Your task to perform on an android device: Open Google Chrome and click the shortcut for Amazon.com Image 0: 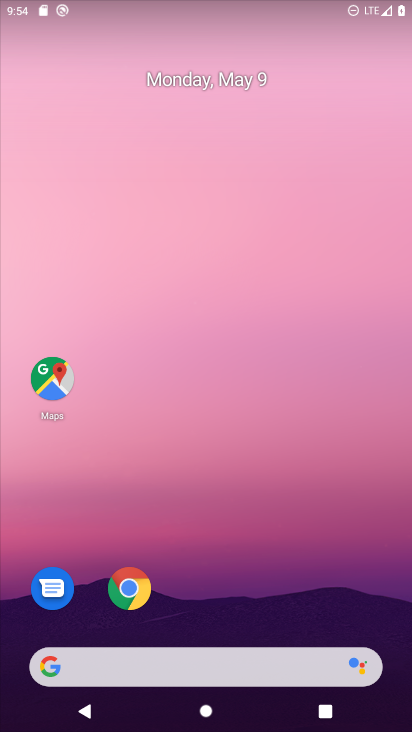
Step 0: click (150, 595)
Your task to perform on an android device: Open Google Chrome and click the shortcut for Amazon.com Image 1: 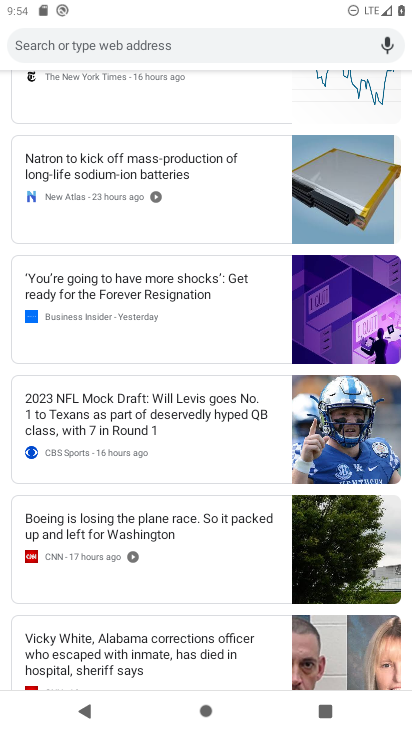
Step 1: drag from (308, 261) to (397, 683)
Your task to perform on an android device: Open Google Chrome and click the shortcut for Amazon.com Image 2: 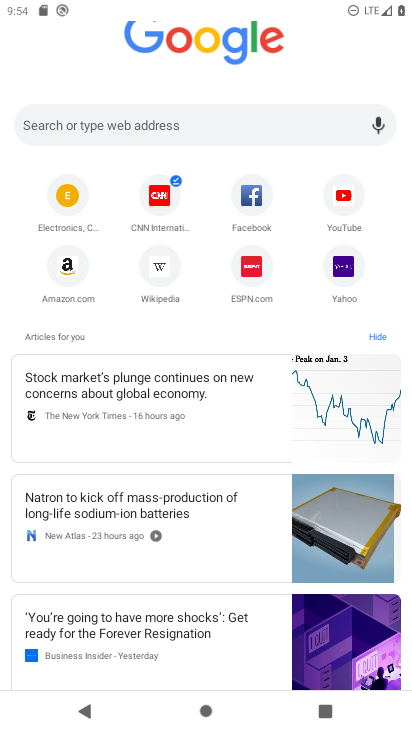
Step 2: drag from (211, 324) to (283, 694)
Your task to perform on an android device: Open Google Chrome and click the shortcut for Amazon.com Image 3: 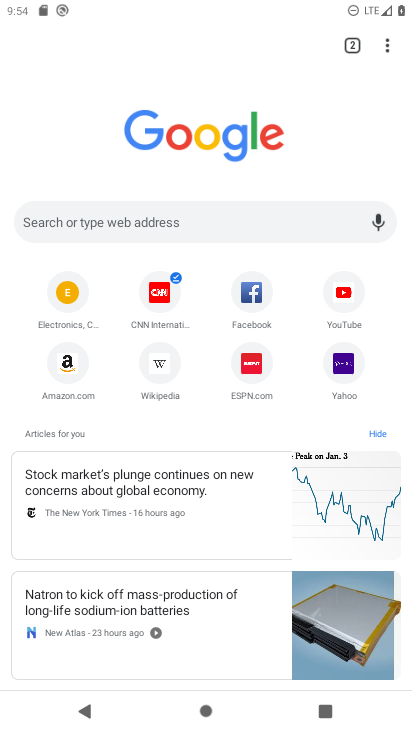
Step 3: click (382, 43)
Your task to perform on an android device: Open Google Chrome and click the shortcut for Amazon.com Image 4: 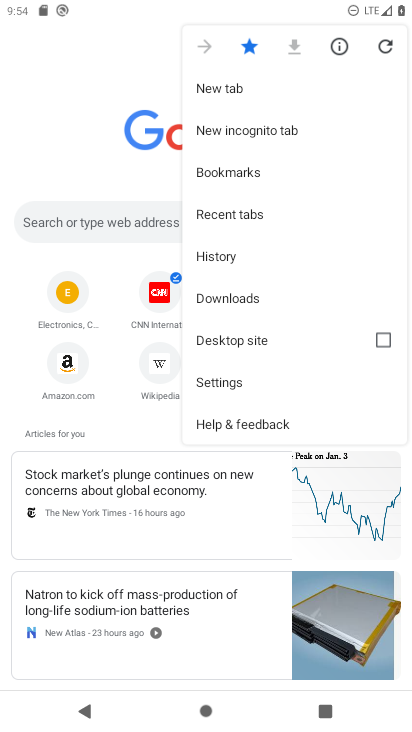
Step 4: click (54, 377)
Your task to perform on an android device: Open Google Chrome and click the shortcut for Amazon.com Image 5: 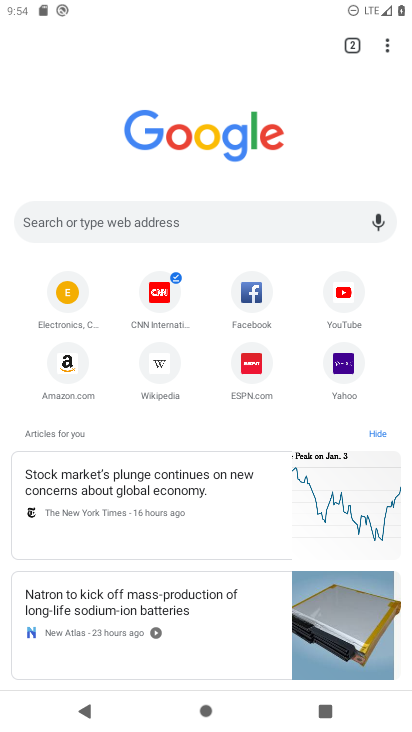
Step 5: click (62, 373)
Your task to perform on an android device: Open Google Chrome and click the shortcut for Amazon.com Image 6: 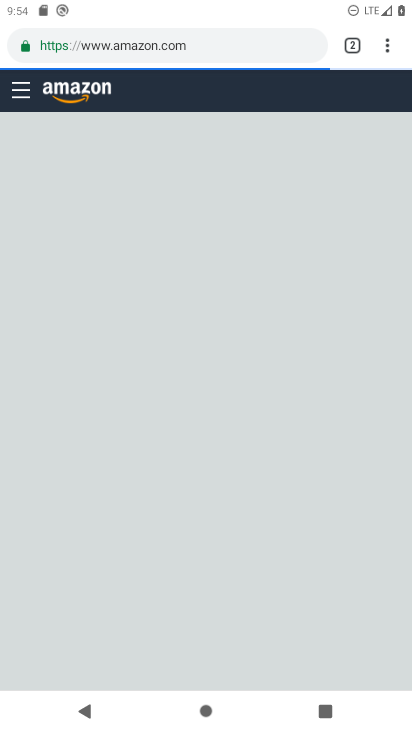
Step 6: task complete